Your task to perform on an android device: clear all cookies in the chrome app Image 0: 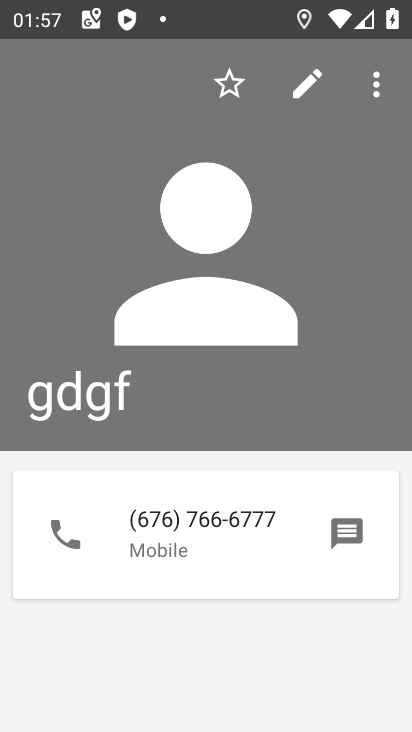
Step 0: press home button
Your task to perform on an android device: clear all cookies in the chrome app Image 1: 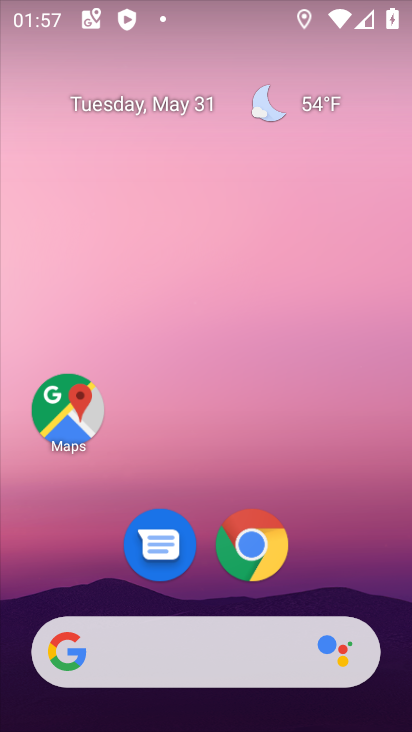
Step 1: click (262, 544)
Your task to perform on an android device: clear all cookies in the chrome app Image 2: 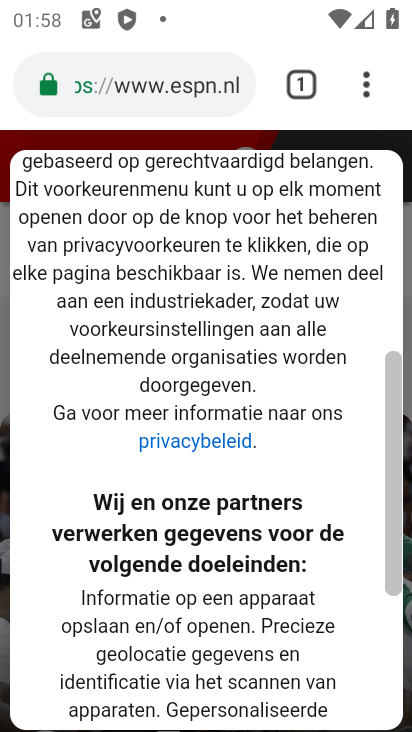
Step 2: click (375, 78)
Your task to perform on an android device: clear all cookies in the chrome app Image 3: 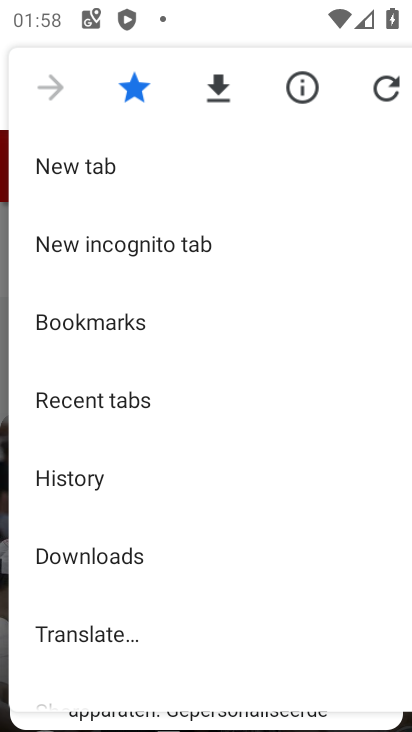
Step 3: drag from (264, 583) to (235, 312)
Your task to perform on an android device: clear all cookies in the chrome app Image 4: 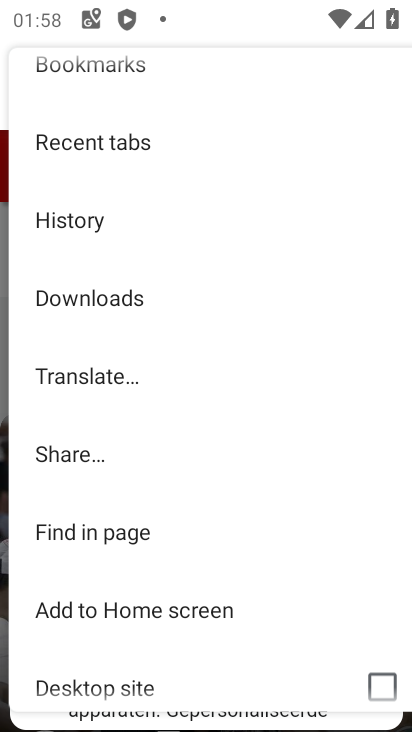
Step 4: drag from (198, 548) to (166, 599)
Your task to perform on an android device: clear all cookies in the chrome app Image 5: 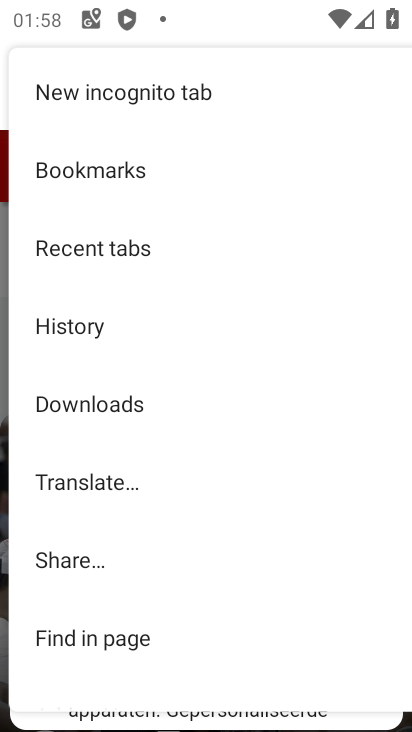
Step 5: drag from (131, 603) to (140, 314)
Your task to perform on an android device: clear all cookies in the chrome app Image 6: 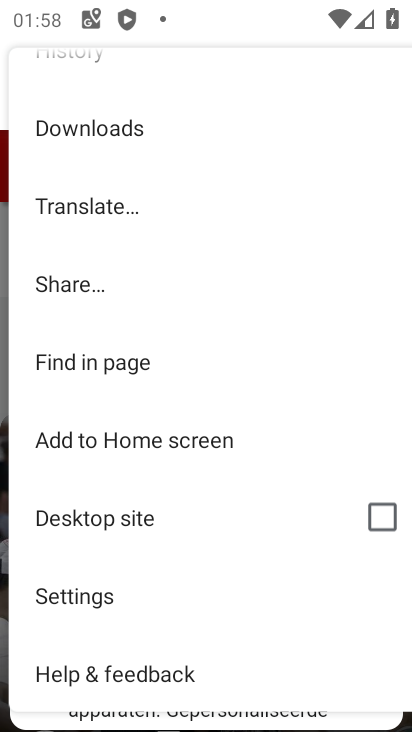
Step 6: click (130, 587)
Your task to perform on an android device: clear all cookies in the chrome app Image 7: 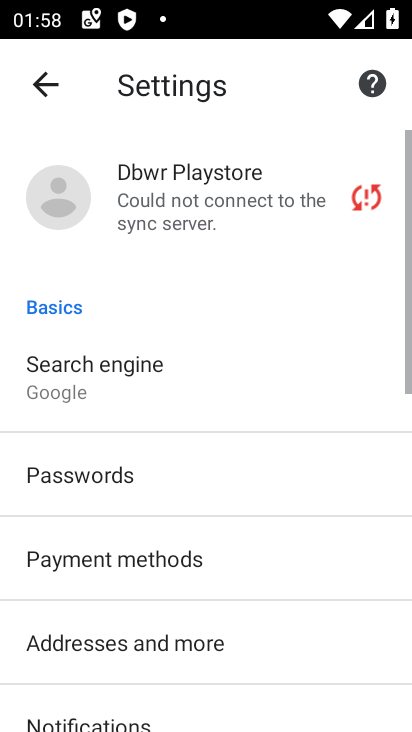
Step 7: drag from (271, 649) to (271, 225)
Your task to perform on an android device: clear all cookies in the chrome app Image 8: 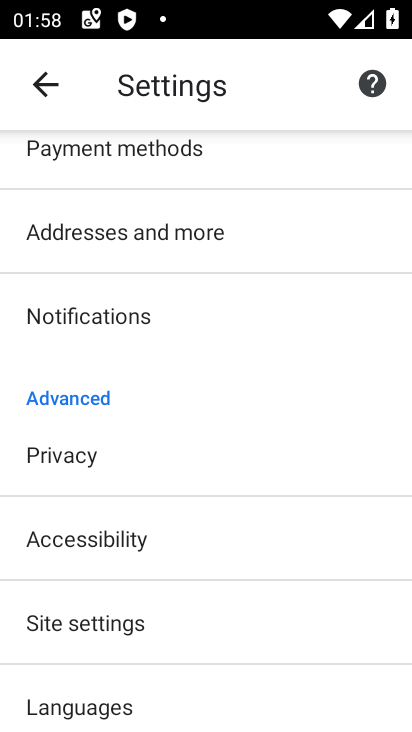
Step 8: click (208, 455)
Your task to perform on an android device: clear all cookies in the chrome app Image 9: 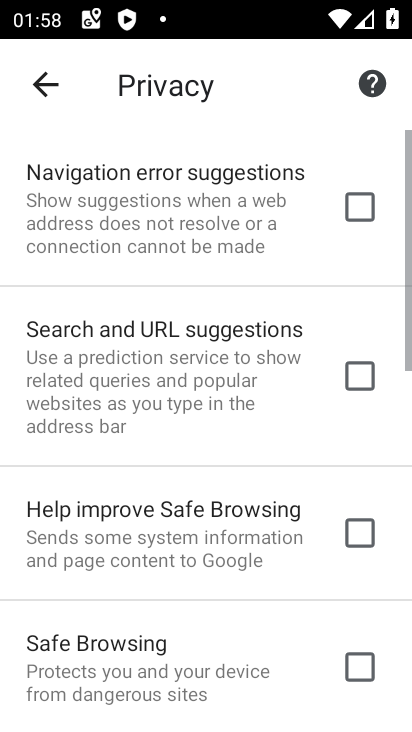
Step 9: drag from (205, 603) to (211, 134)
Your task to perform on an android device: clear all cookies in the chrome app Image 10: 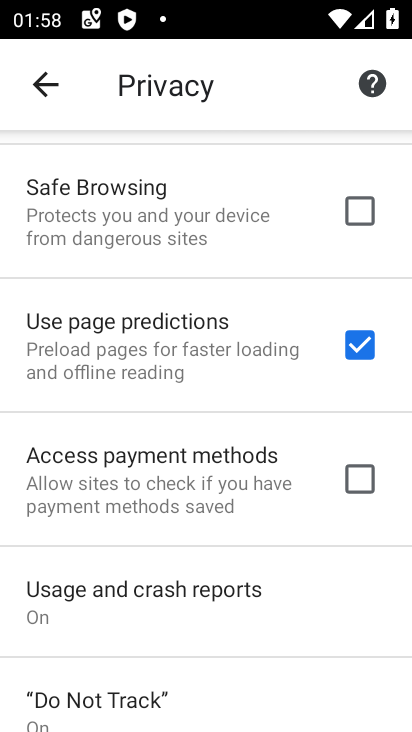
Step 10: drag from (244, 654) to (228, 188)
Your task to perform on an android device: clear all cookies in the chrome app Image 11: 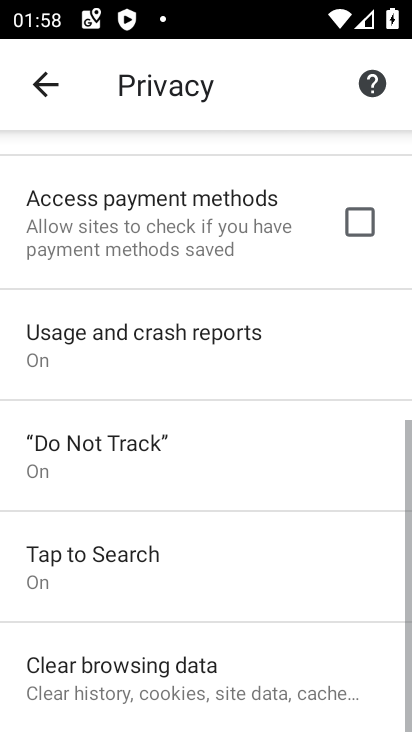
Step 11: click (216, 662)
Your task to perform on an android device: clear all cookies in the chrome app Image 12: 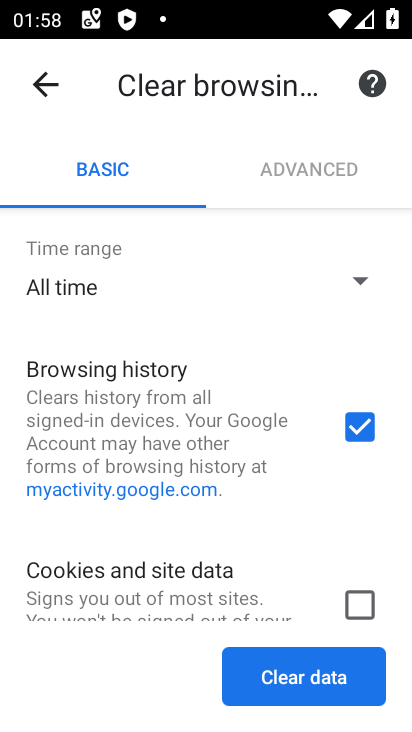
Step 12: click (363, 423)
Your task to perform on an android device: clear all cookies in the chrome app Image 13: 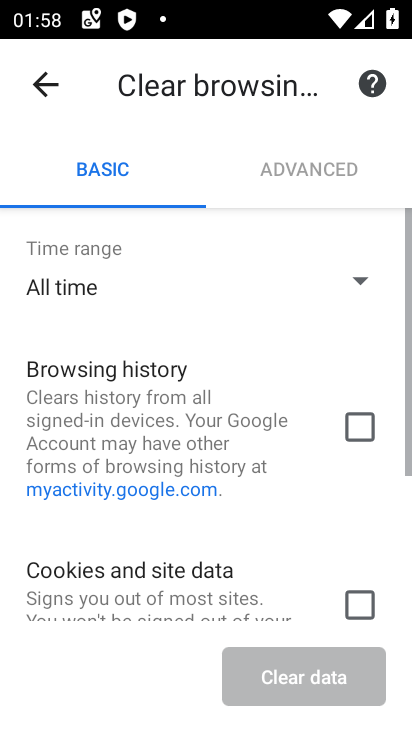
Step 13: click (356, 597)
Your task to perform on an android device: clear all cookies in the chrome app Image 14: 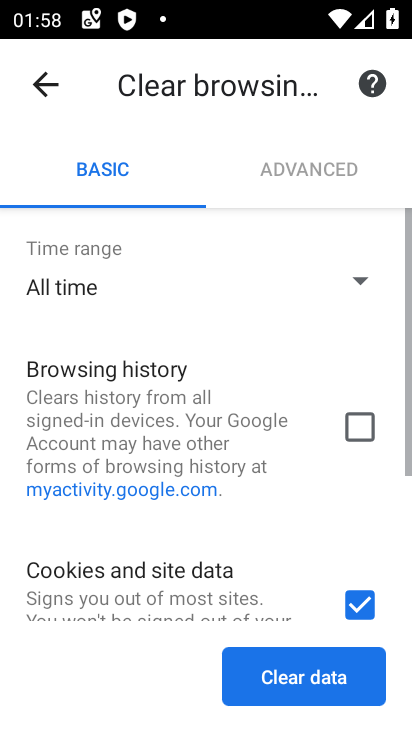
Step 14: drag from (308, 543) to (275, 237)
Your task to perform on an android device: clear all cookies in the chrome app Image 15: 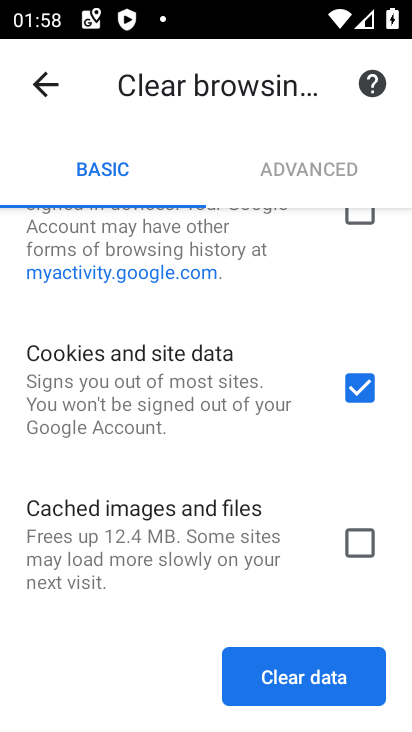
Step 15: click (270, 674)
Your task to perform on an android device: clear all cookies in the chrome app Image 16: 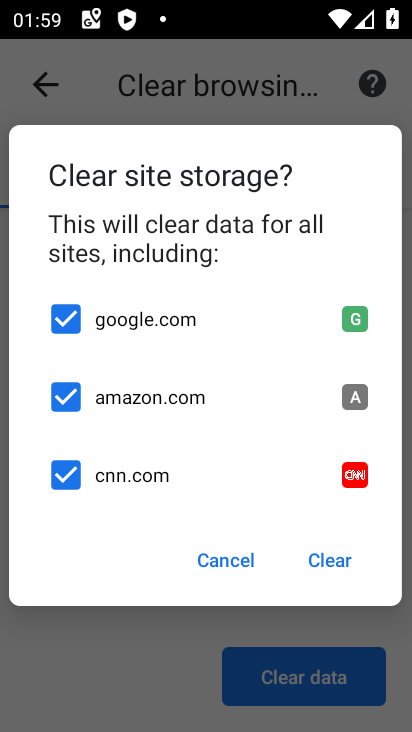
Step 16: click (323, 569)
Your task to perform on an android device: clear all cookies in the chrome app Image 17: 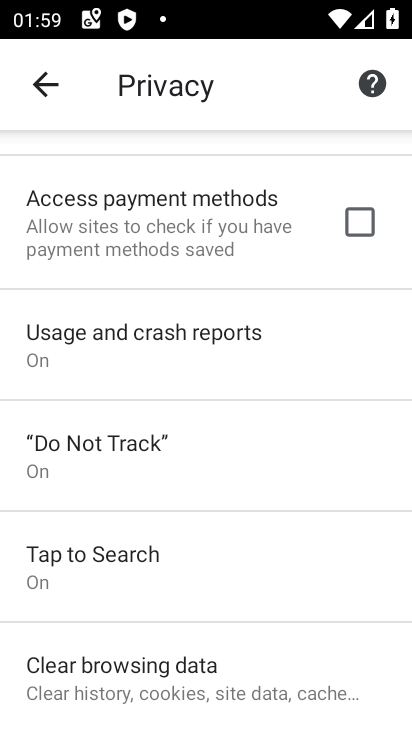
Step 17: task complete